Your task to perform on an android device: Do I have any events tomorrow? Image 0: 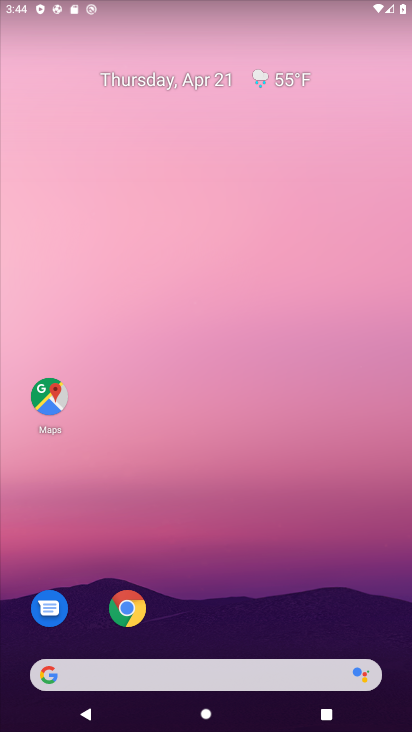
Step 0: drag from (207, 514) to (309, 80)
Your task to perform on an android device: Do I have any events tomorrow? Image 1: 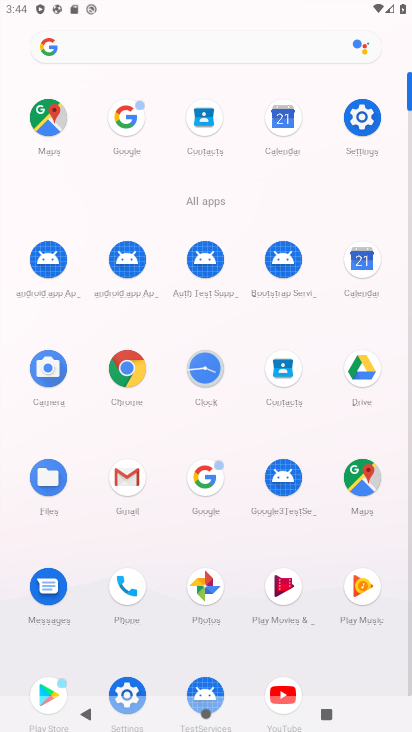
Step 1: click (371, 276)
Your task to perform on an android device: Do I have any events tomorrow? Image 2: 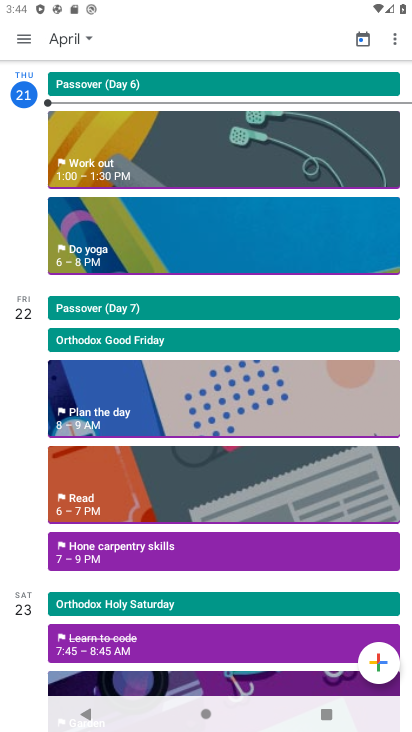
Step 2: click (74, 38)
Your task to perform on an android device: Do I have any events tomorrow? Image 3: 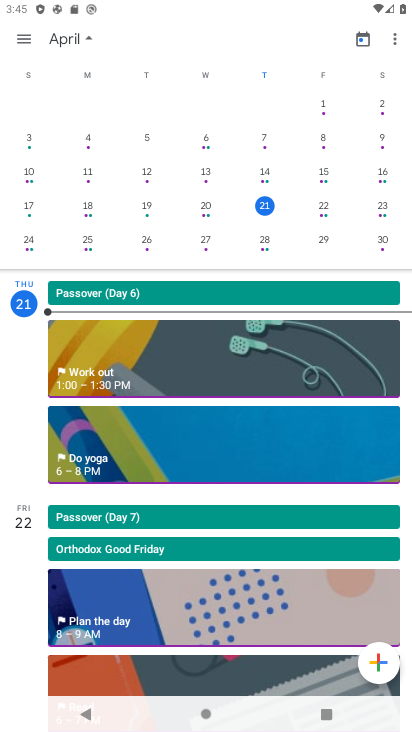
Step 3: click (322, 208)
Your task to perform on an android device: Do I have any events tomorrow? Image 4: 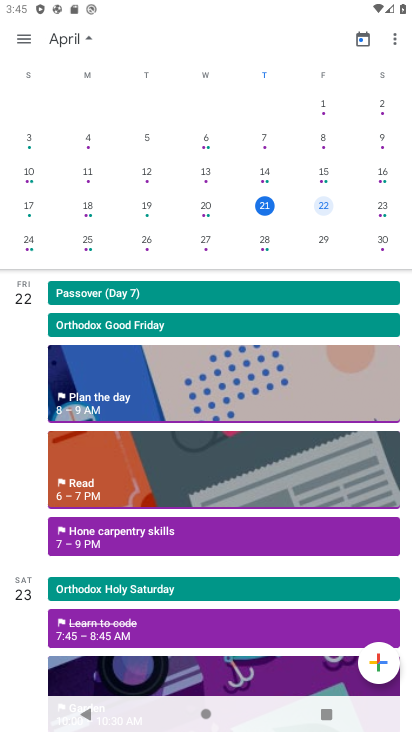
Step 4: task complete